Your task to perform on an android device: Check the news Image 0: 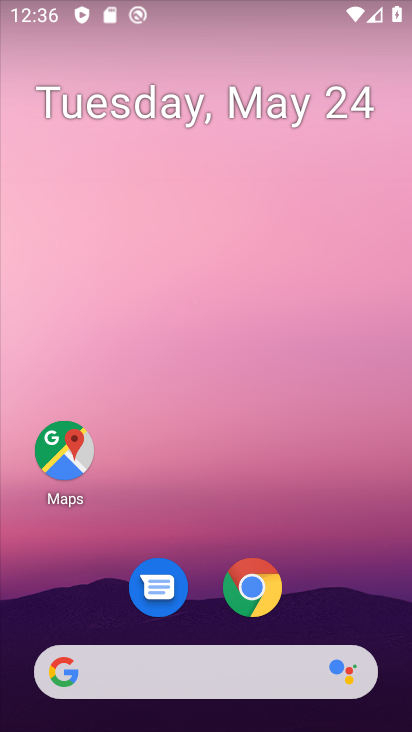
Step 0: drag from (285, 663) to (227, 181)
Your task to perform on an android device: Check the news Image 1: 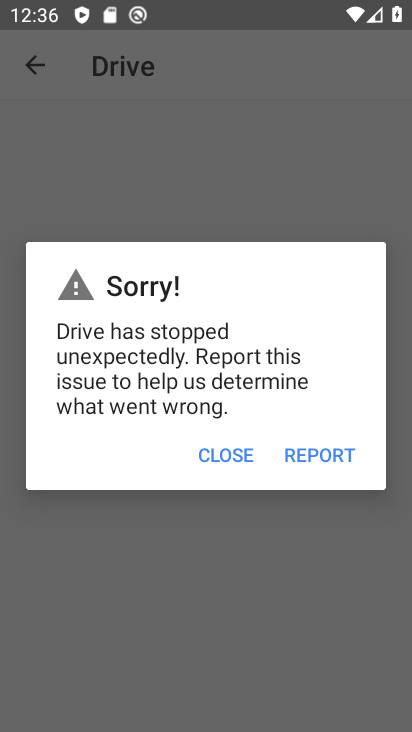
Step 1: press home button
Your task to perform on an android device: Check the news Image 2: 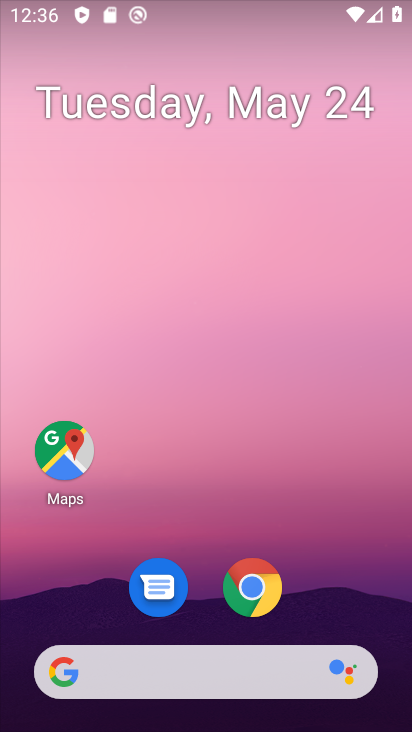
Step 2: drag from (253, 668) to (210, 277)
Your task to perform on an android device: Check the news Image 3: 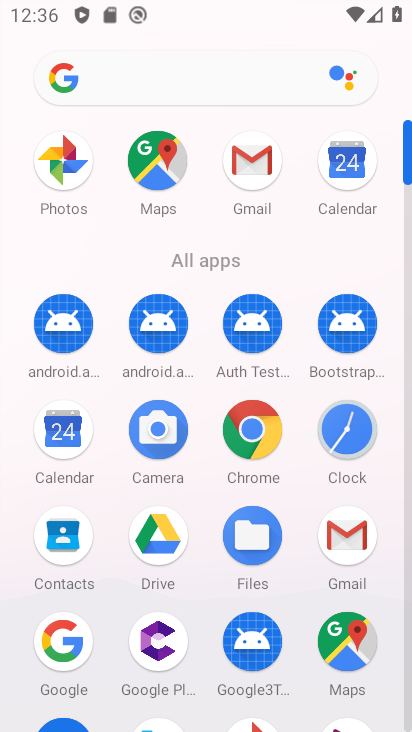
Step 3: click (42, 633)
Your task to perform on an android device: Check the news Image 4: 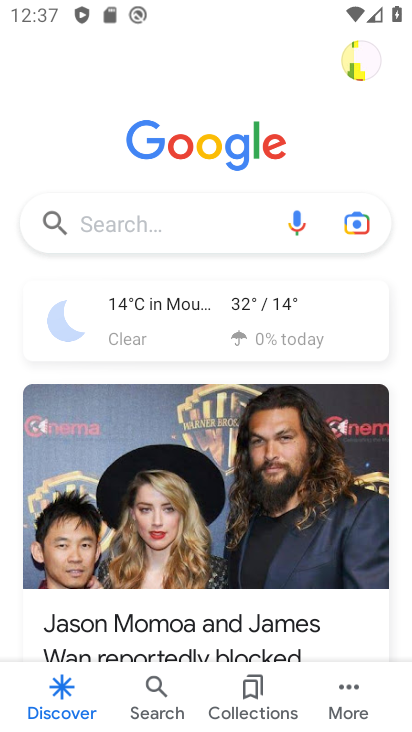
Step 4: task complete